Your task to perform on an android device: Go to Yahoo.com Image 0: 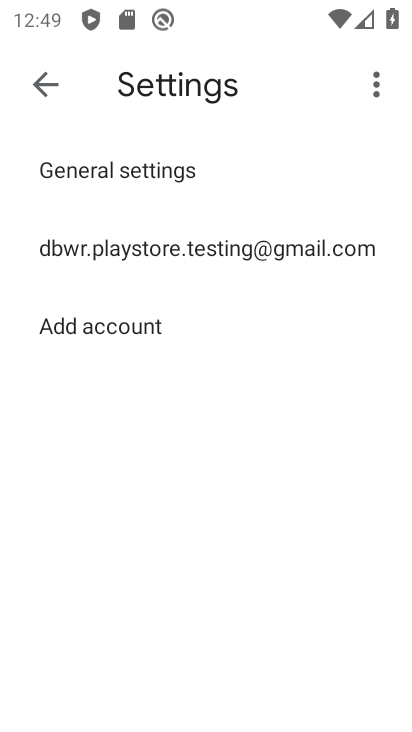
Step 0: press home button
Your task to perform on an android device: Go to Yahoo.com Image 1: 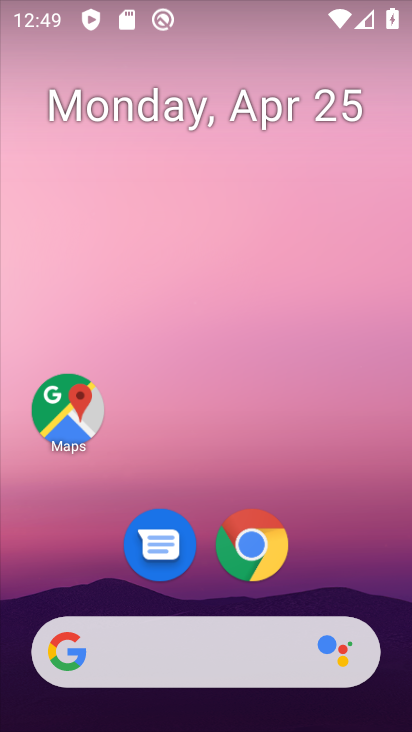
Step 1: click (246, 532)
Your task to perform on an android device: Go to Yahoo.com Image 2: 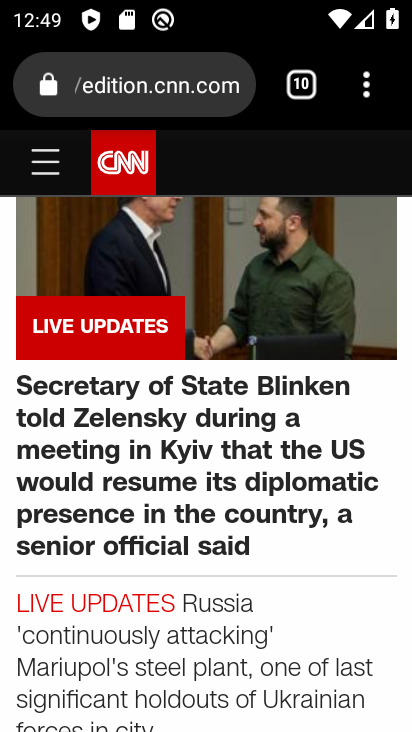
Step 2: click (299, 87)
Your task to perform on an android device: Go to Yahoo.com Image 3: 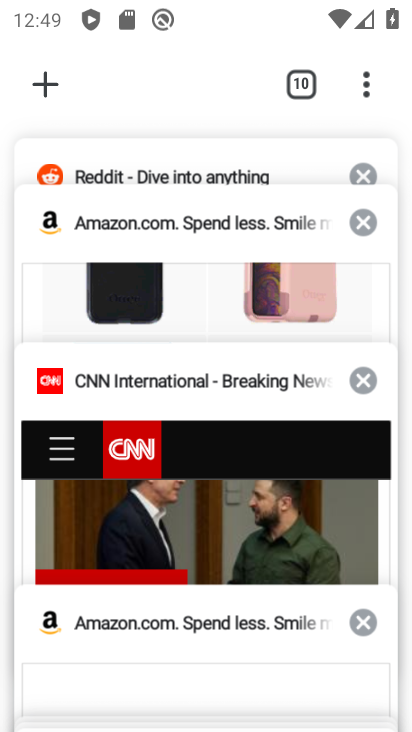
Step 3: drag from (216, 234) to (223, 577)
Your task to perform on an android device: Go to Yahoo.com Image 4: 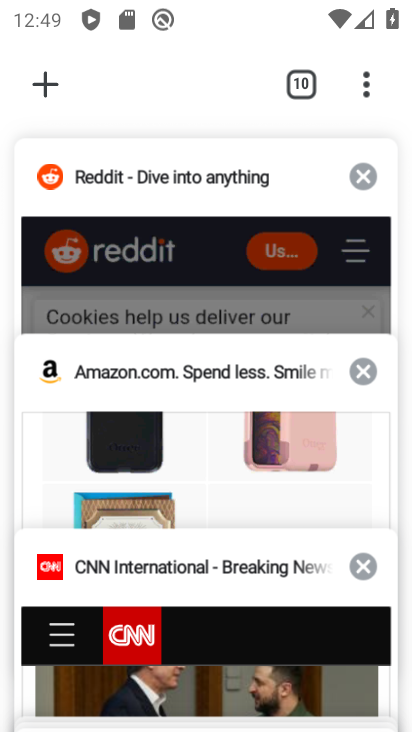
Step 4: drag from (198, 504) to (202, 172)
Your task to perform on an android device: Go to Yahoo.com Image 5: 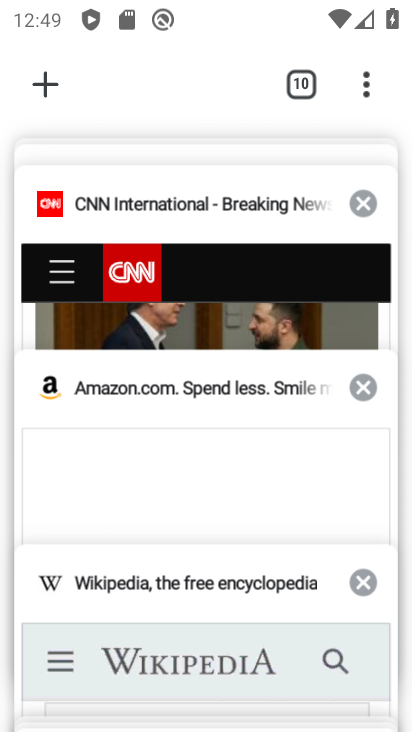
Step 5: drag from (166, 652) to (183, 209)
Your task to perform on an android device: Go to Yahoo.com Image 6: 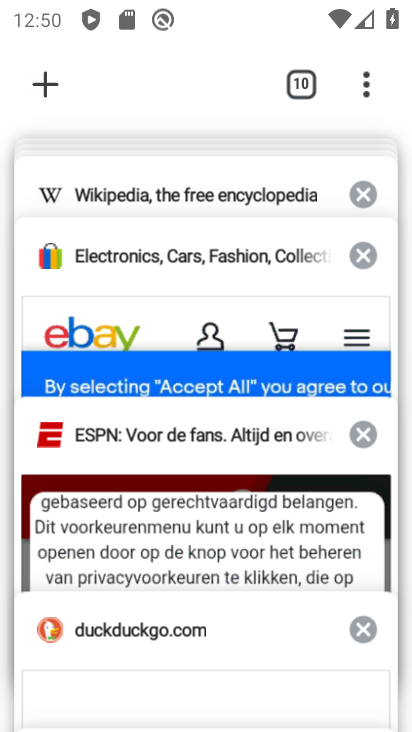
Step 6: drag from (131, 602) to (133, 150)
Your task to perform on an android device: Go to Yahoo.com Image 7: 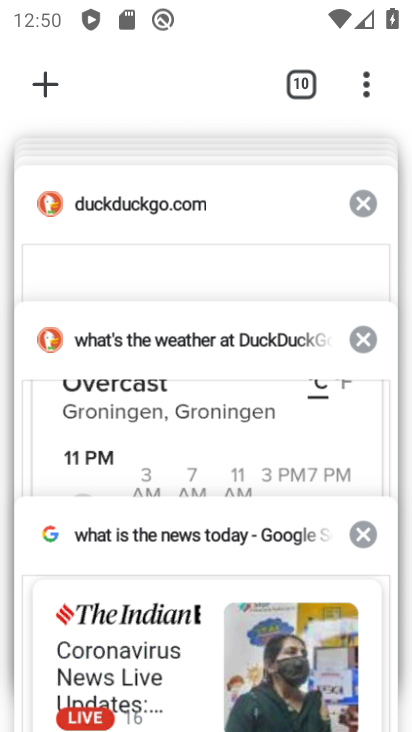
Step 7: drag from (150, 623) to (200, 207)
Your task to perform on an android device: Go to Yahoo.com Image 8: 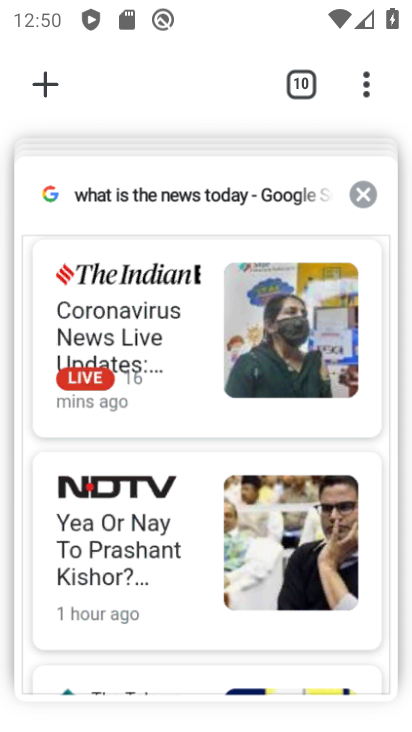
Step 8: click (37, 82)
Your task to perform on an android device: Go to Yahoo.com Image 9: 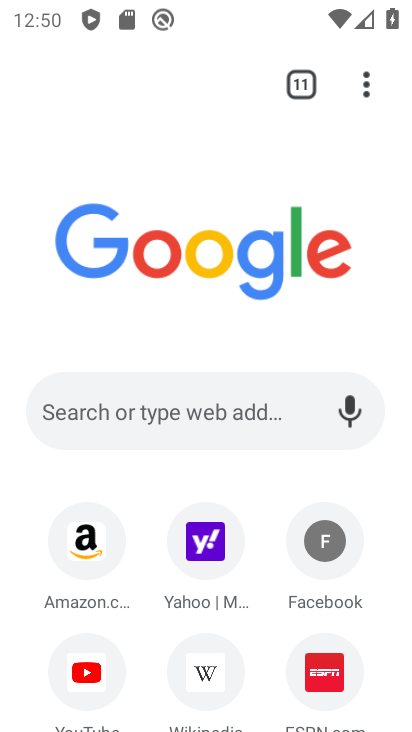
Step 9: click (214, 551)
Your task to perform on an android device: Go to Yahoo.com Image 10: 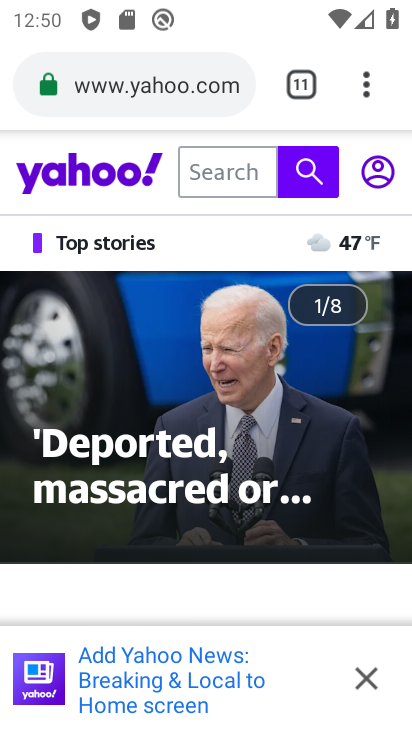
Step 10: task complete